Your task to perform on an android device: Go to accessibility settings Image 0: 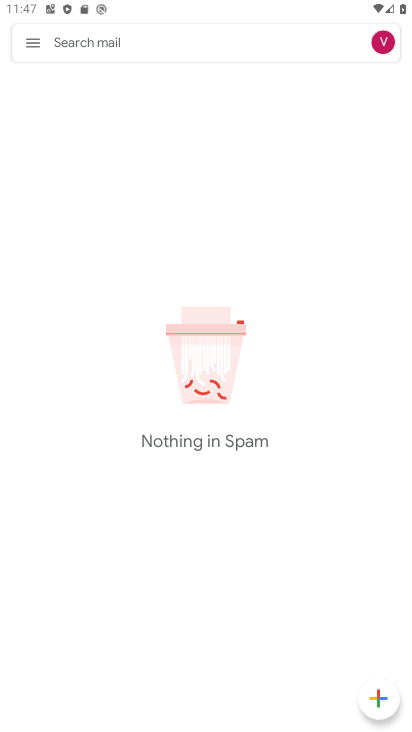
Step 0: press home button
Your task to perform on an android device: Go to accessibility settings Image 1: 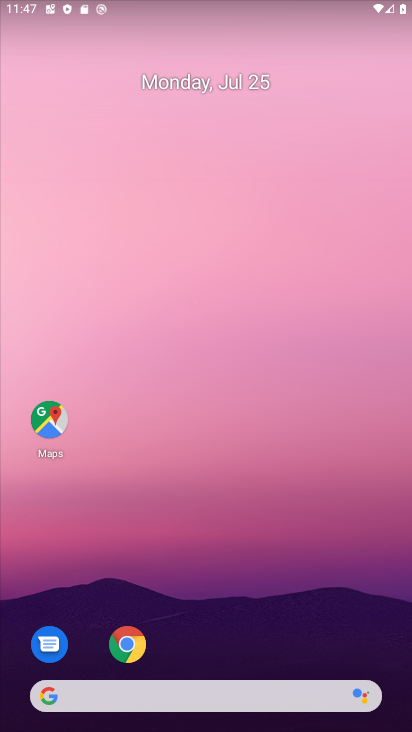
Step 1: drag from (211, 609) to (223, 57)
Your task to perform on an android device: Go to accessibility settings Image 2: 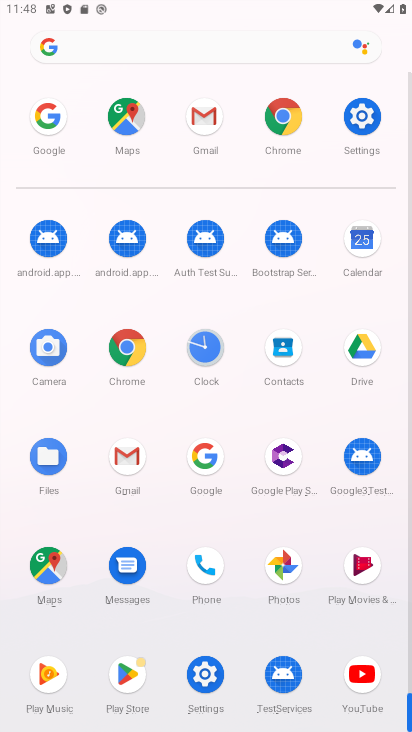
Step 2: click (363, 124)
Your task to perform on an android device: Go to accessibility settings Image 3: 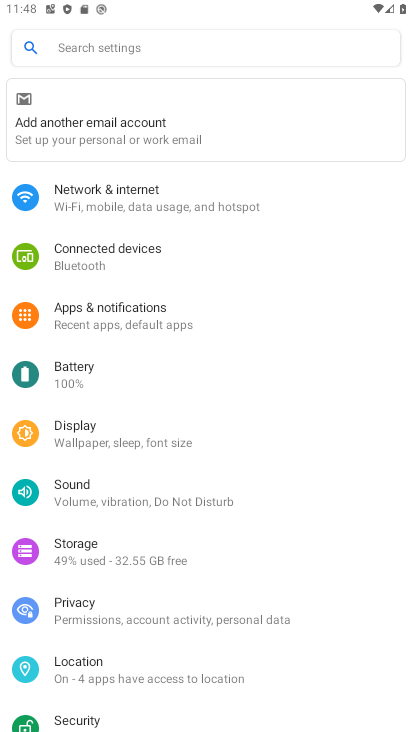
Step 3: drag from (121, 574) to (137, 340)
Your task to perform on an android device: Go to accessibility settings Image 4: 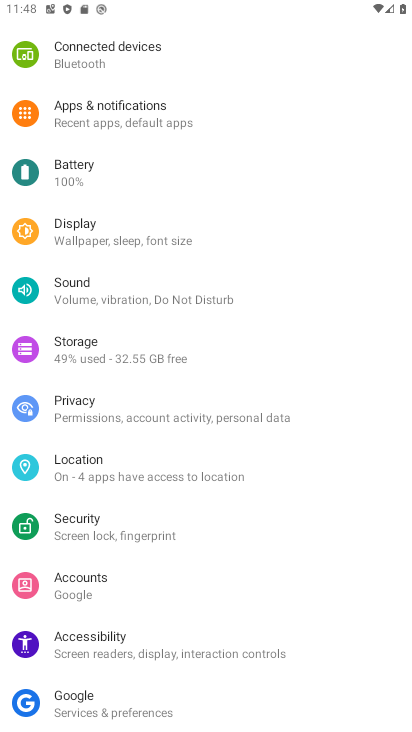
Step 4: click (132, 655)
Your task to perform on an android device: Go to accessibility settings Image 5: 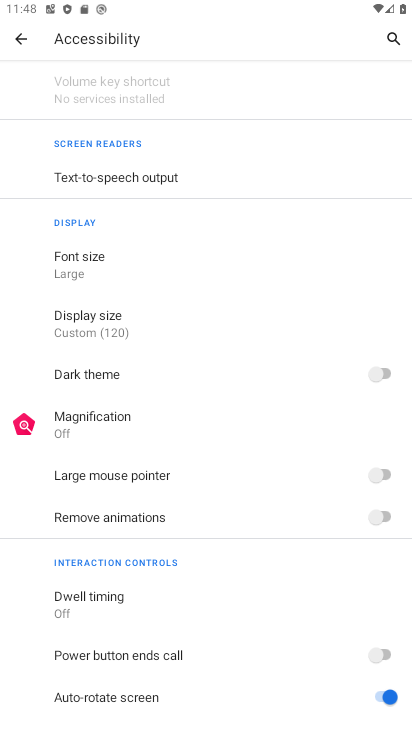
Step 5: task complete